Your task to perform on an android device: change notification settings in the gmail app Image 0: 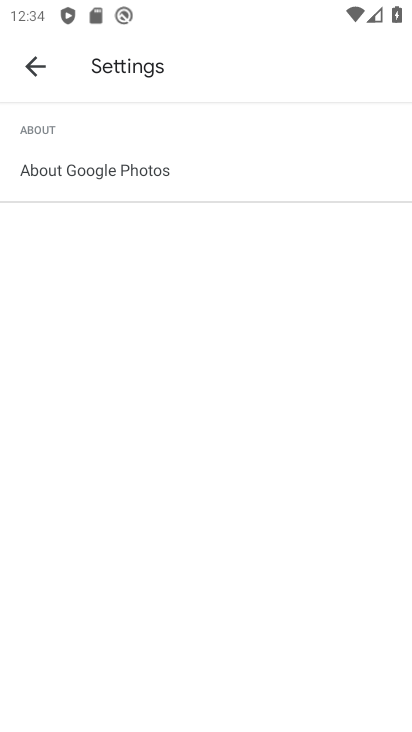
Step 0: press home button
Your task to perform on an android device: change notification settings in the gmail app Image 1: 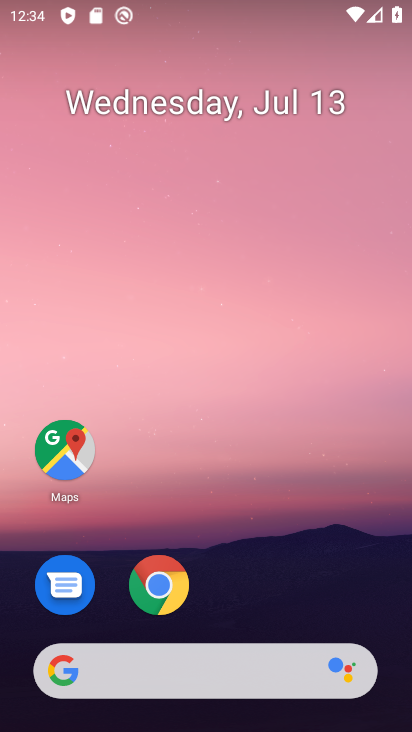
Step 1: drag from (173, 605) to (233, 215)
Your task to perform on an android device: change notification settings in the gmail app Image 2: 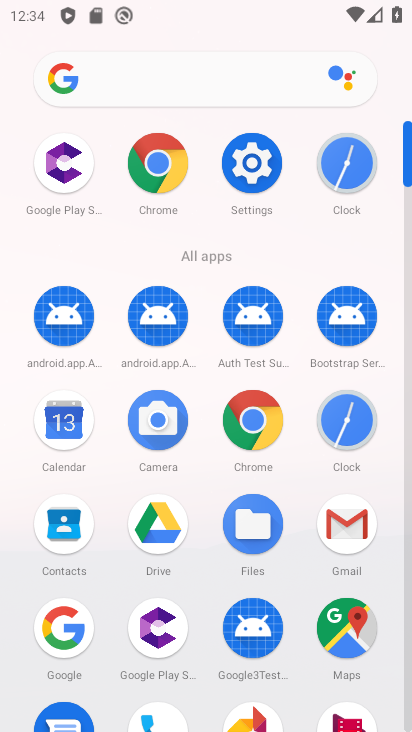
Step 2: click (342, 526)
Your task to perform on an android device: change notification settings in the gmail app Image 3: 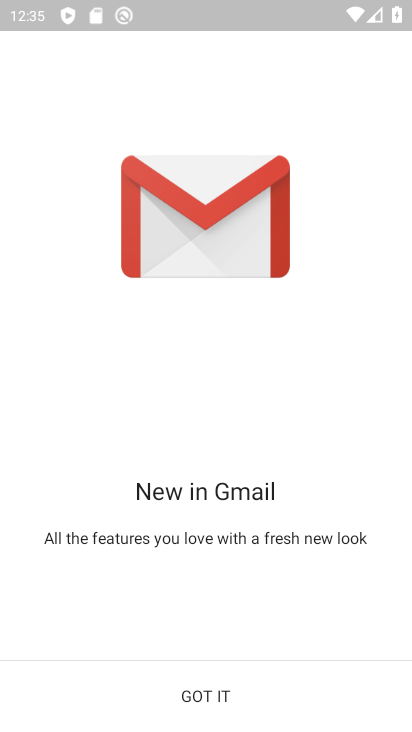
Step 3: click (222, 691)
Your task to perform on an android device: change notification settings in the gmail app Image 4: 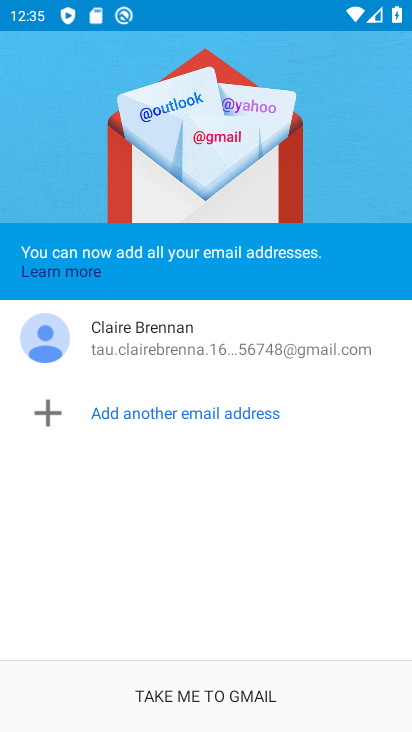
Step 4: click (222, 691)
Your task to perform on an android device: change notification settings in the gmail app Image 5: 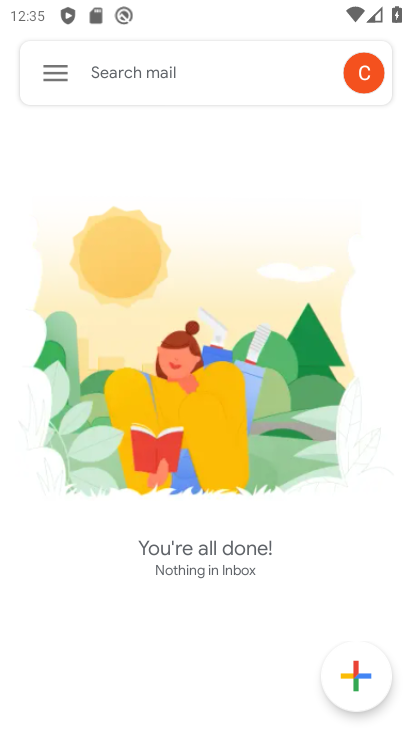
Step 5: click (58, 63)
Your task to perform on an android device: change notification settings in the gmail app Image 6: 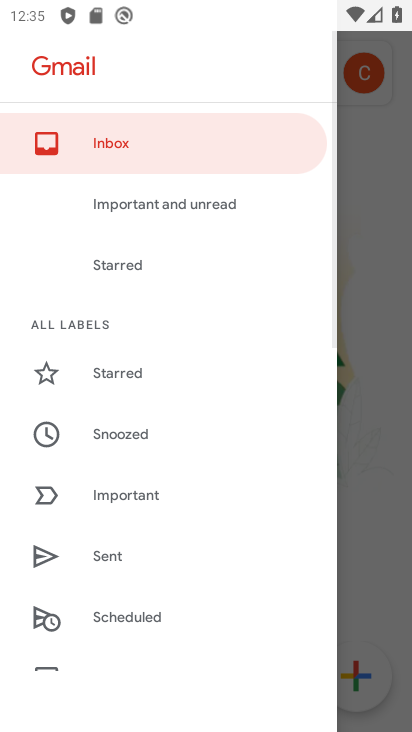
Step 6: drag from (187, 612) to (234, 132)
Your task to perform on an android device: change notification settings in the gmail app Image 7: 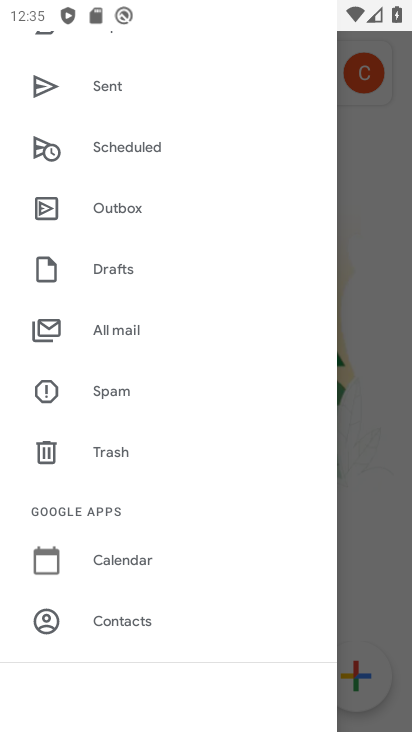
Step 7: drag from (145, 646) to (258, 108)
Your task to perform on an android device: change notification settings in the gmail app Image 8: 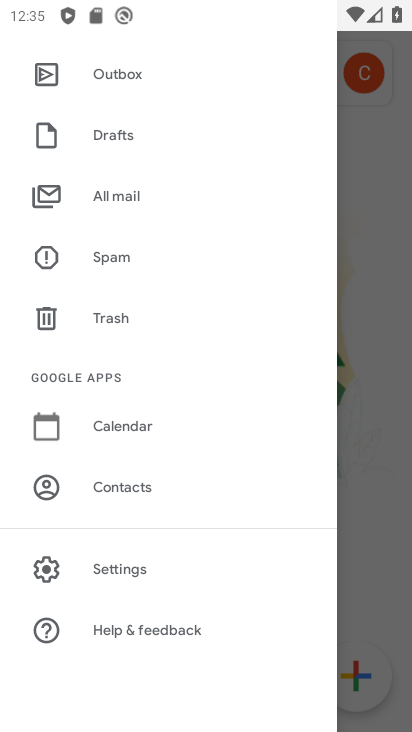
Step 8: click (134, 568)
Your task to perform on an android device: change notification settings in the gmail app Image 9: 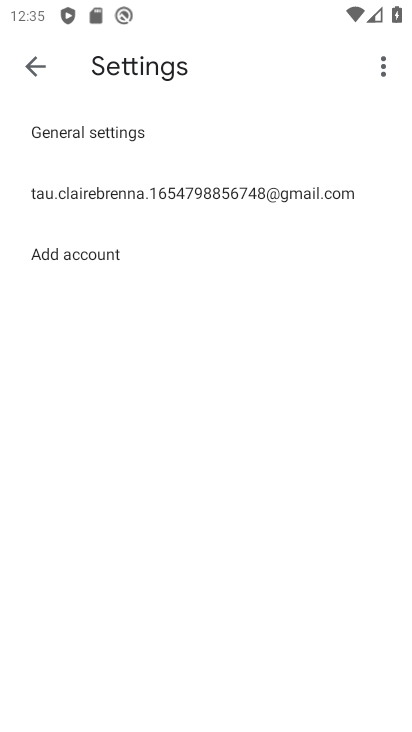
Step 9: click (252, 189)
Your task to perform on an android device: change notification settings in the gmail app Image 10: 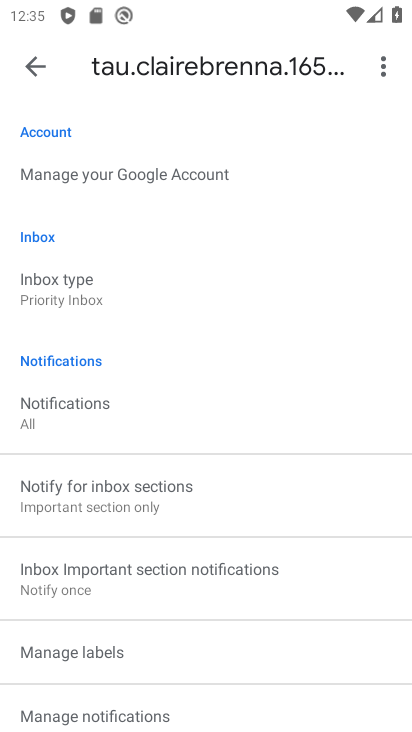
Step 10: drag from (229, 652) to (213, 527)
Your task to perform on an android device: change notification settings in the gmail app Image 11: 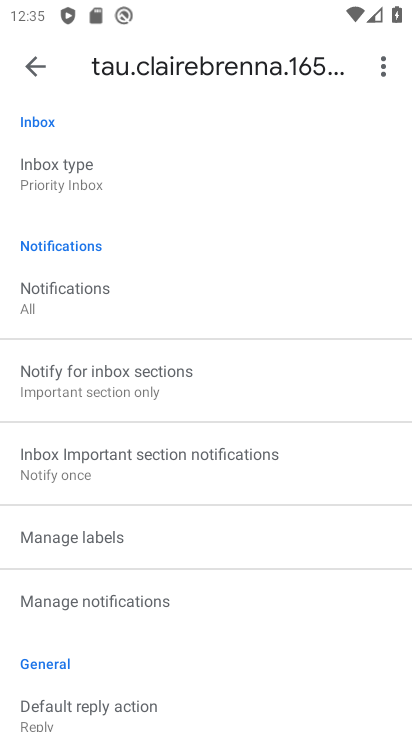
Step 11: click (54, 308)
Your task to perform on an android device: change notification settings in the gmail app Image 12: 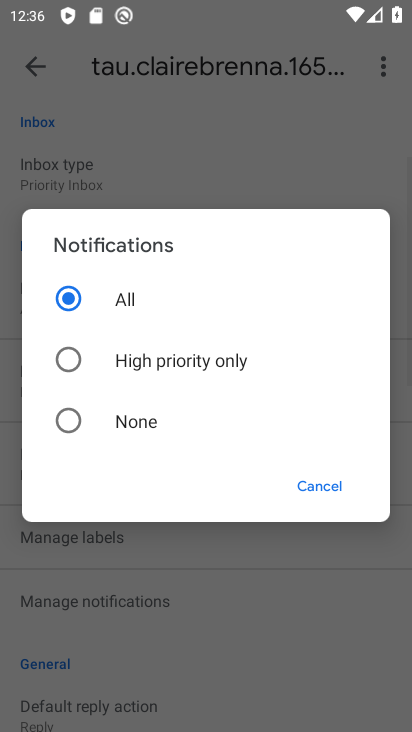
Step 12: click (76, 429)
Your task to perform on an android device: change notification settings in the gmail app Image 13: 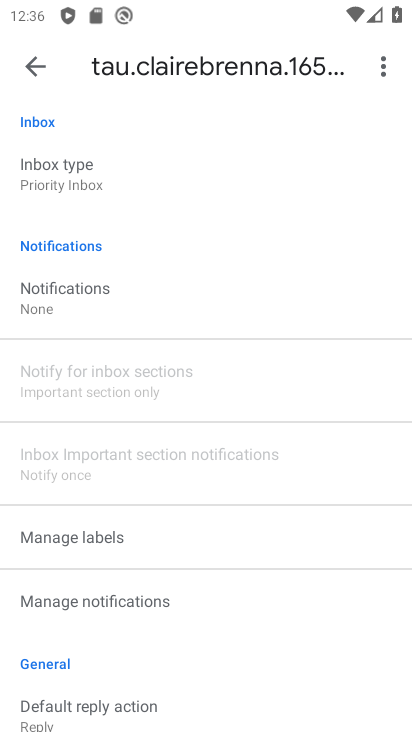
Step 13: task complete